Your task to perform on an android device: Open calendar and show me the first week of next month Image 0: 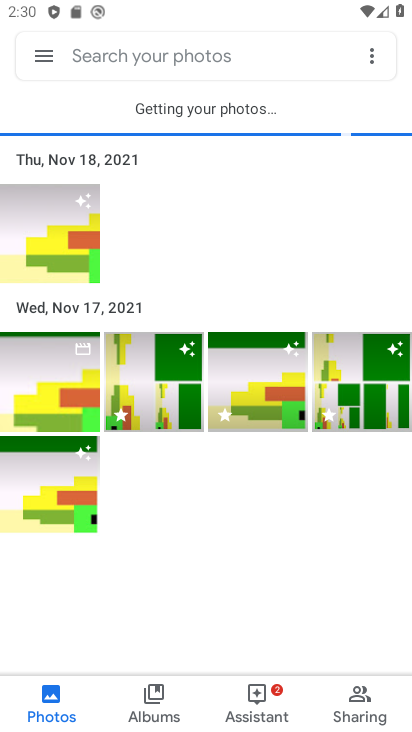
Step 0: press home button
Your task to perform on an android device: Open calendar and show me the first week of next month Image 1: 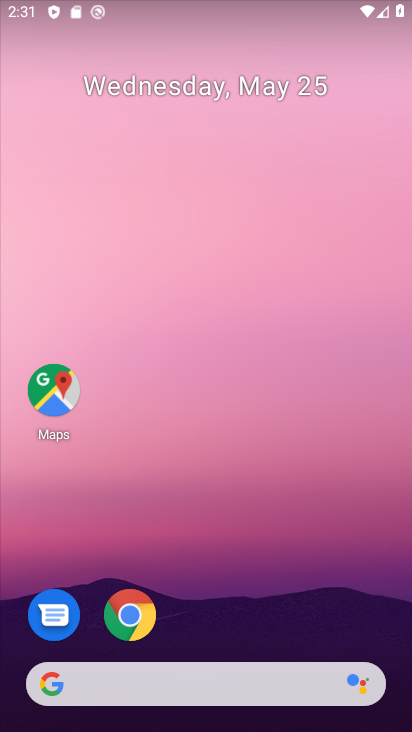
Step 1: drag from (246, 604) to (254, 10)
Your task to perform on an android device: Open calendar and show me the first week of next month Image 2: 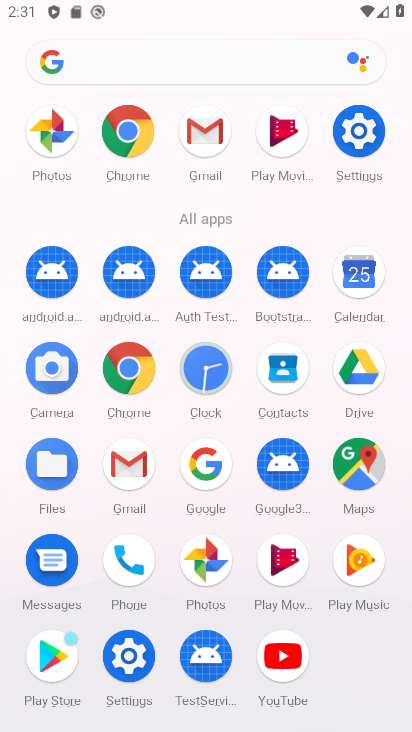
Step 2: click (360, 274)
Your task to perform on an android device: Open calendar and show me the first week of next month Image 3: 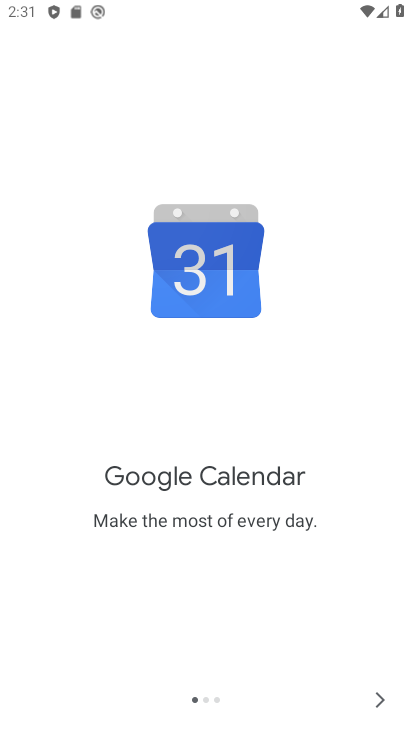
Step 3: click (386, 704)
Your task to perform on an android device: Open calendar and show me the first week of next month Image 4: 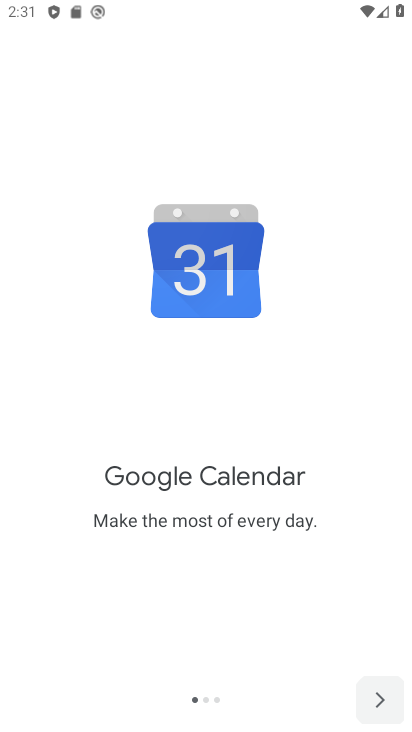
Step 4: click (386, 703)
Your task to perform on an android device: Open calendar and show me the first week of next month Image 5: 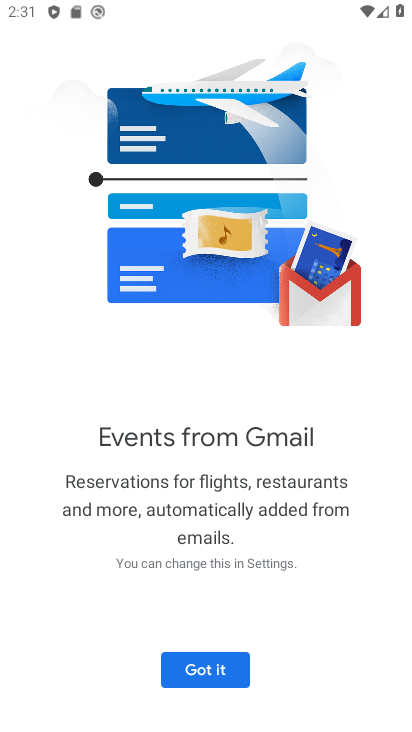
Step 5: click (386, 703)
Your task to perform on an android device: Open calendar and show me the first week of next month Image 6: 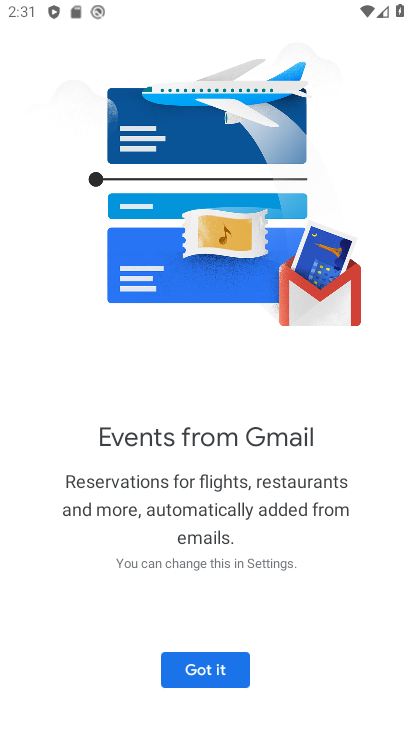
Step 6: click (213, 676)
Your task to perform on an android device: Open calendar and show me the first week of next month Image 7: 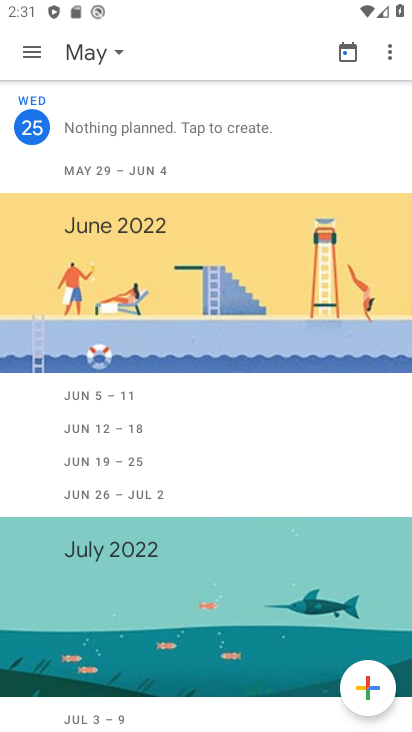
Step 7: click (87, 61)
Your task to perform on an android device: Open calendar and show me the first week of next month Image 8: 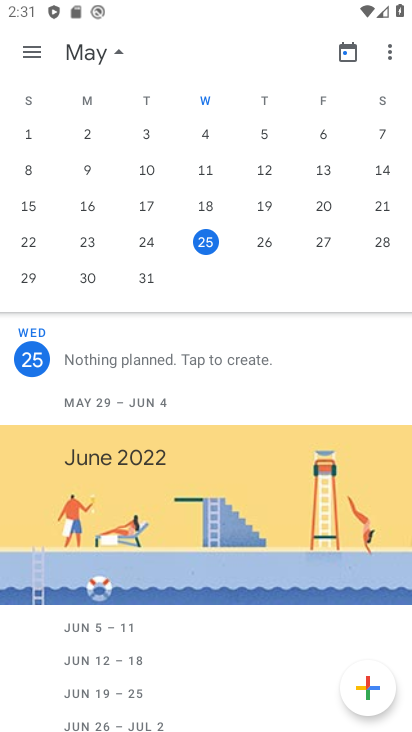
Step 8: drag from (327, 226) to (1, 137)
Your task to perform on an android device: Open calendar and show me the first week of next month Image 9: 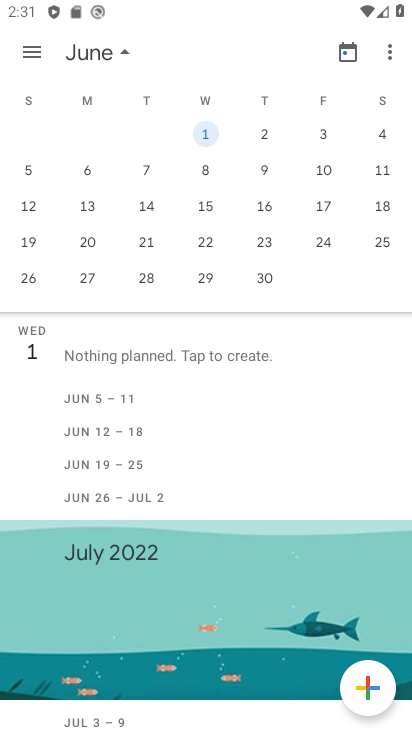
Step 9: click (89, 169)
Your task to perform on an android device: Open calendar and show me the first week of next month Image 10: 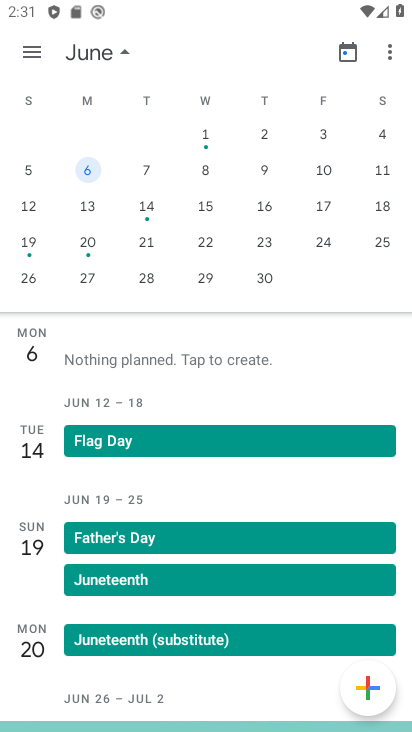
Step 10: click (31, 43)
Your task to perform on an android device: Open calendar and show me the first week of next month Image 11: 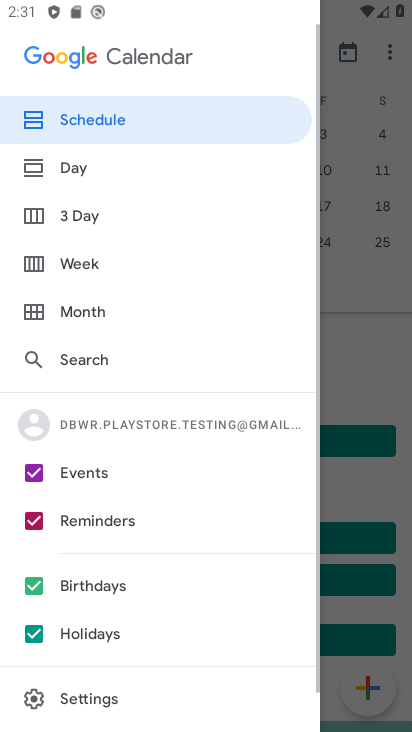
Step 11: click (89, 265)
Your task to perform on an android device: Open calendar and show me the first week of next month Image 12: 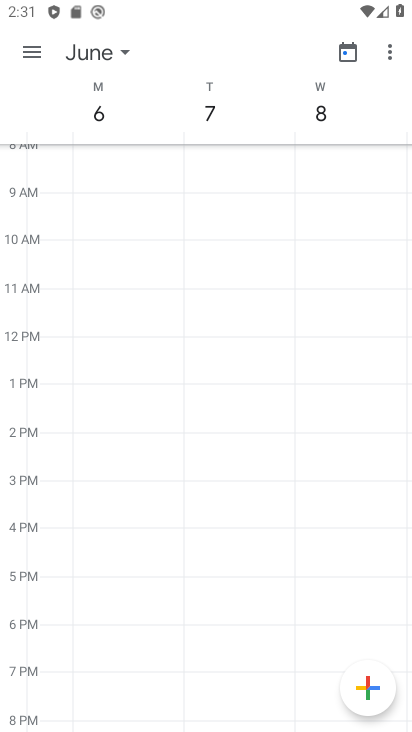
Step 12: task complete